Your task to perform on an android device: open app "Microsoft Excel" (install if not already installed) Image 0: 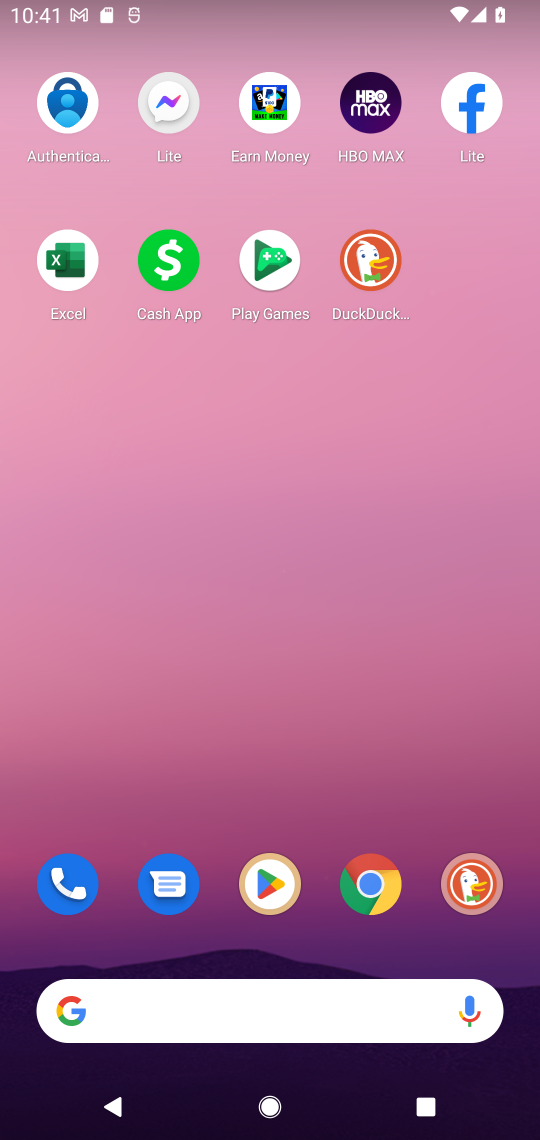
Step 0: drag from (249, 1004) to (339, 39)
Your task to perform on an android device: open app "Microsoft Excel" (install if not already installed) Image 1: 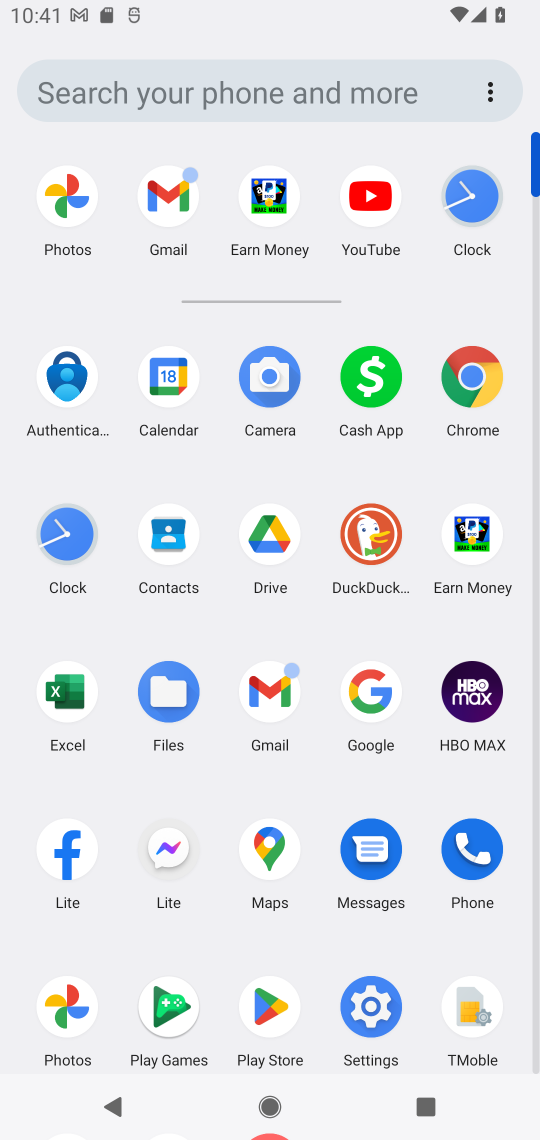
Step 1: click (275, 1013)
Your task to perform on an android device: open app "Microsoft Excel" (install if not already installed) Image 2: 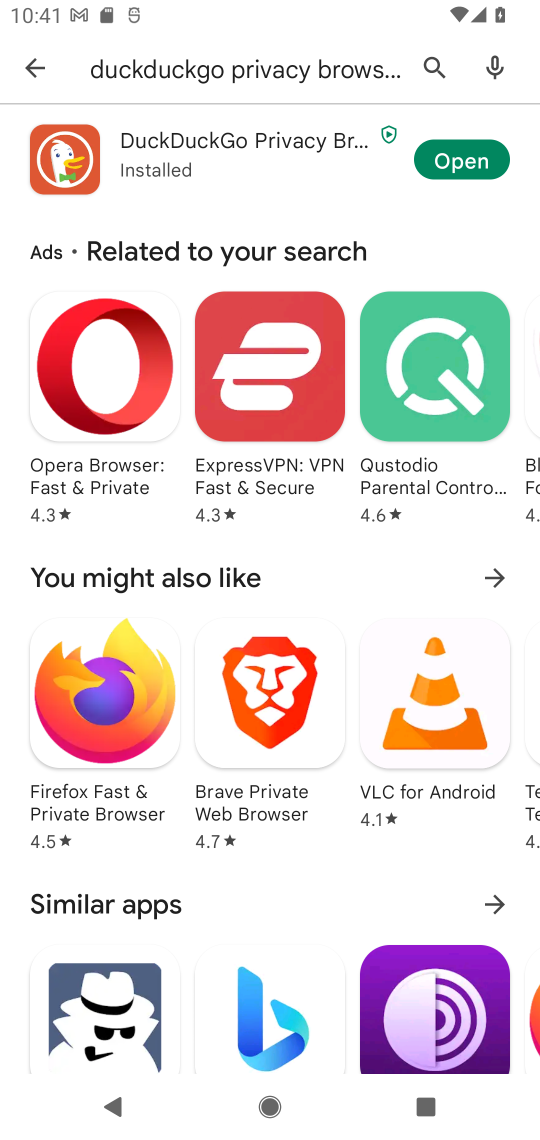
Step 2: press back button
Your task to perform on an android device: open app "Microsoft Excel" (install if not already installed) Image 3: 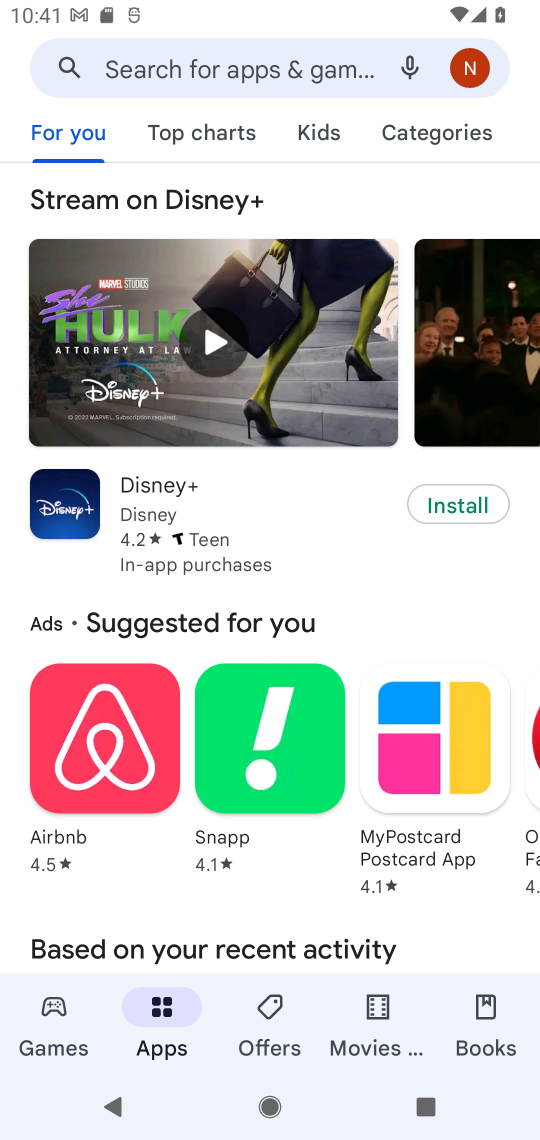
Step 3: click (324, 57)
Your task to perform on an android device: open app "Microsoft Excel" (install if not already installed) Image 4: 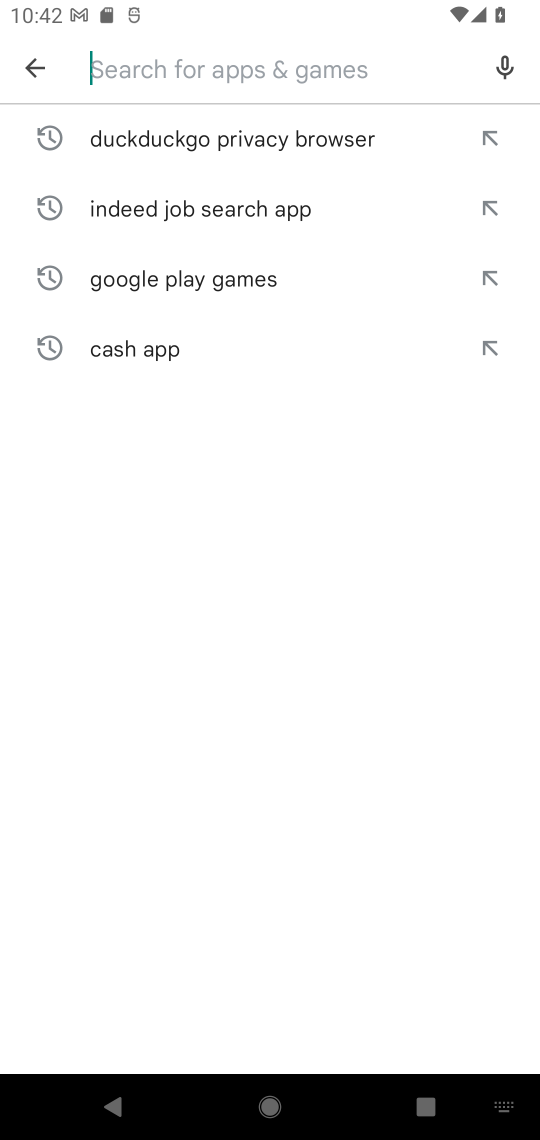
Step 4: type "Microsoft EXcel"
Your task to perform on an android device: open app "Microsoft Excel" (install if not already installed) Image 5: 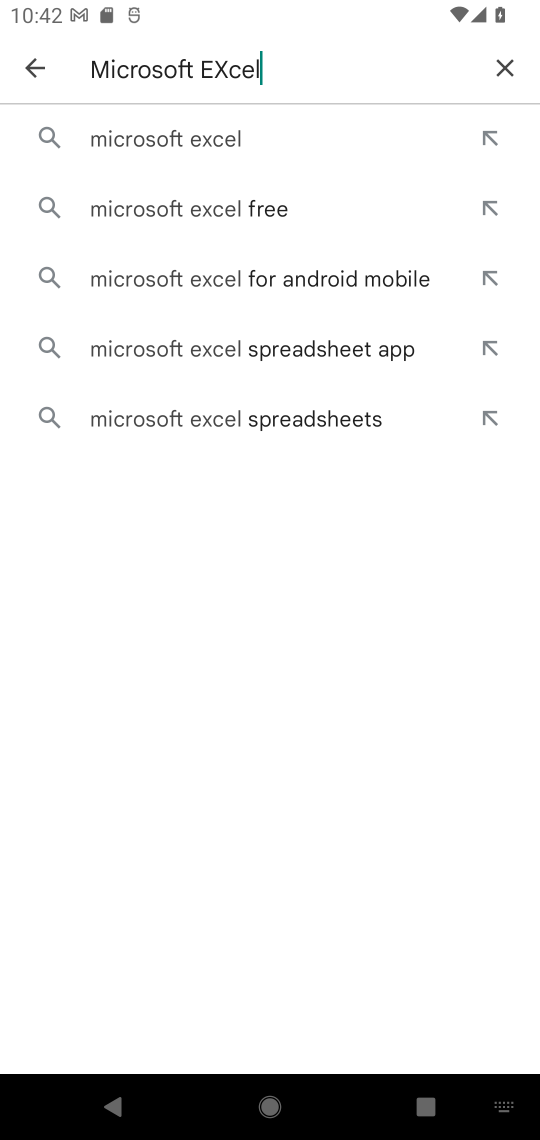
Step 5: click (200, 153)
Your task to perform on an android device: open app "Microsoft Excel" (install if not already installed) Image 6: 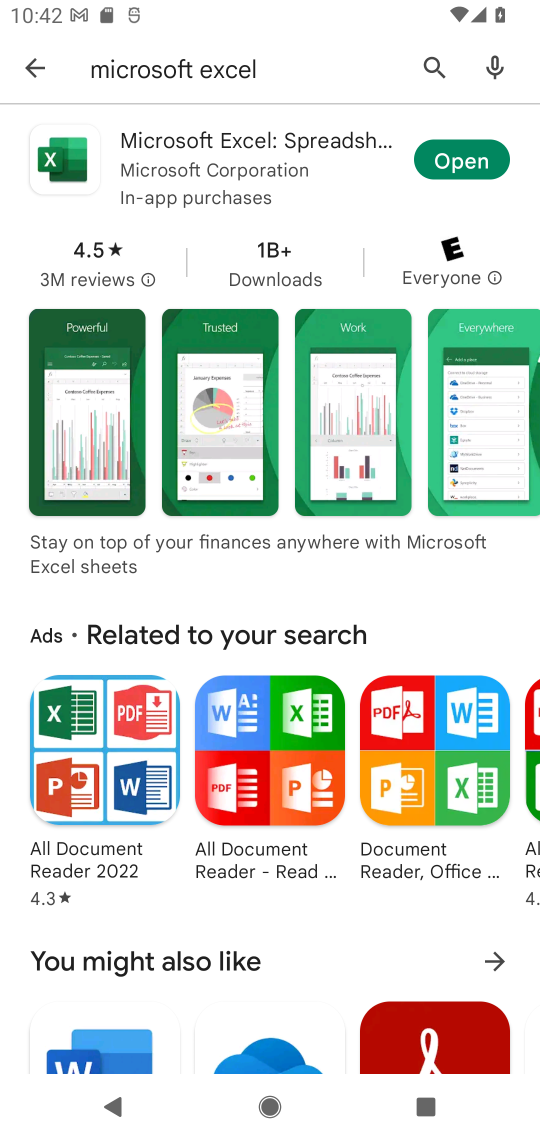
Step 6: click (458, 163)
Your task to perform on an android device: open app "Microsoft Excel" (install if not already installed) Image 7: 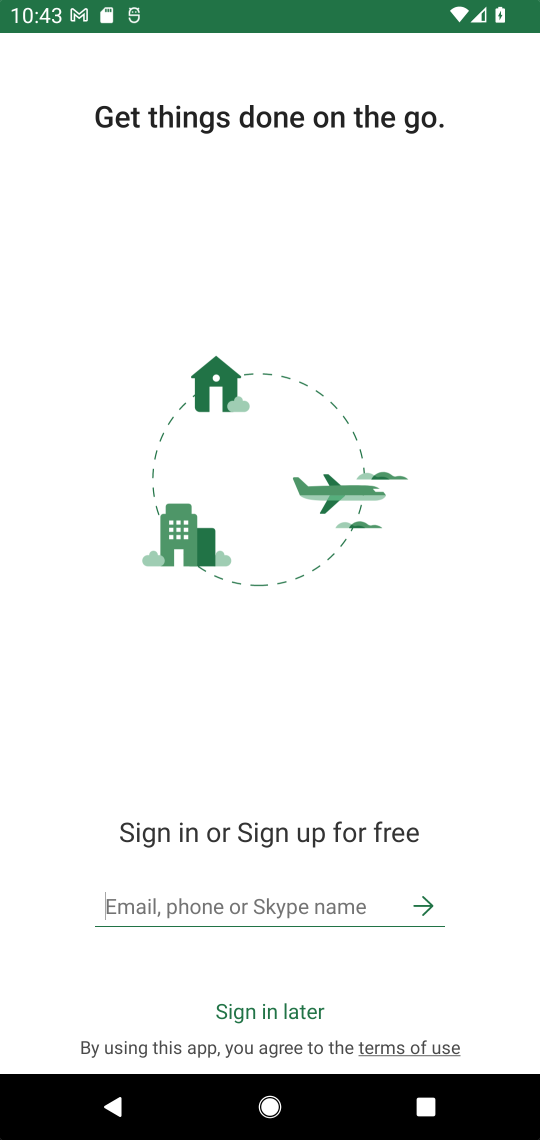
Step 7: task complete